Your task to perform on an android device: Open Amazon Image 0: 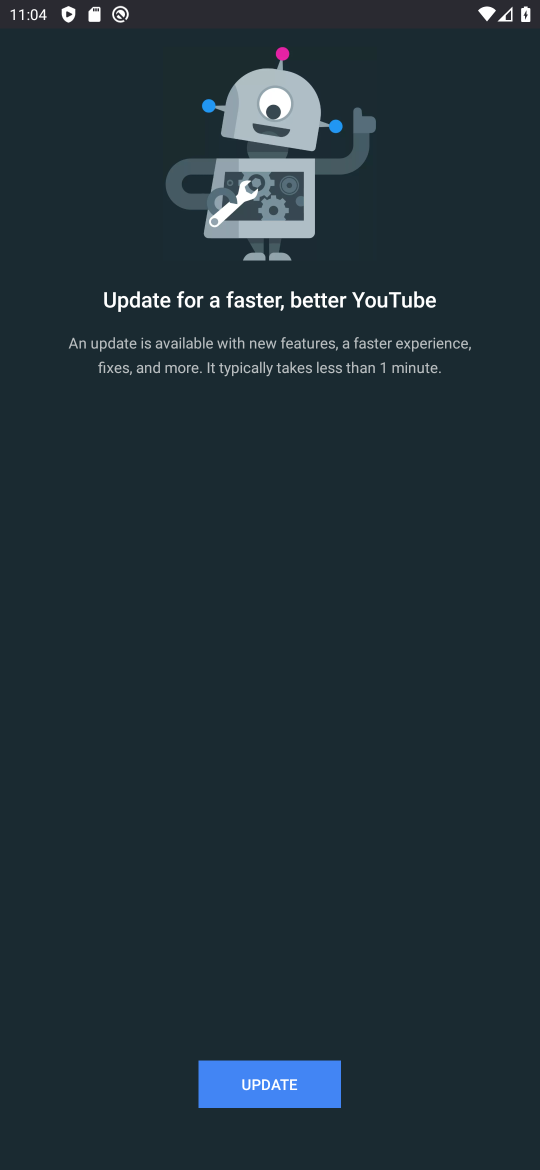
Step 0: task impossible